Your task to perform on an android device: Go to CNN.com Image 0: 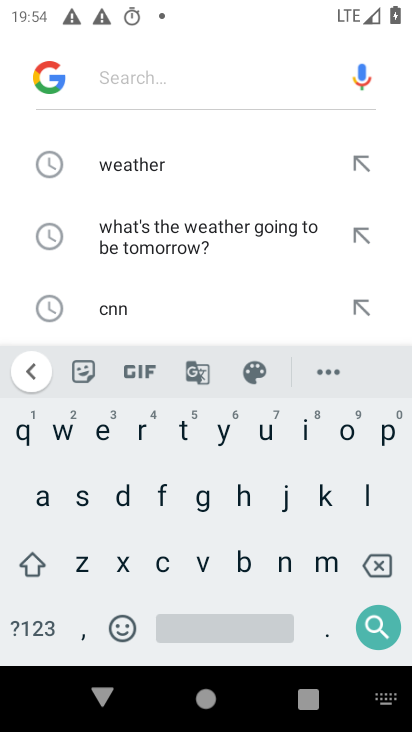
Step 0: press home button
Your task to perform on an android device: Go to CNN.com Image 1: 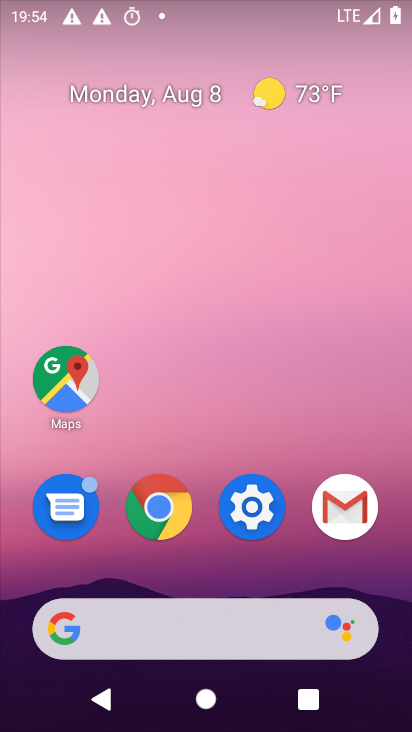
Step 1: click (152, 507)
Your task to perform on an android device: Go to CNN.com Image 2: 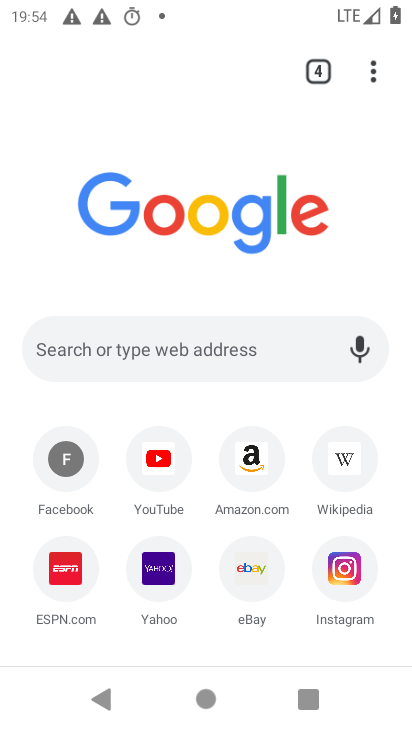
Step 2: click (164, 361)
Your task to perform on an android device: Go to CNN.com Image 3: 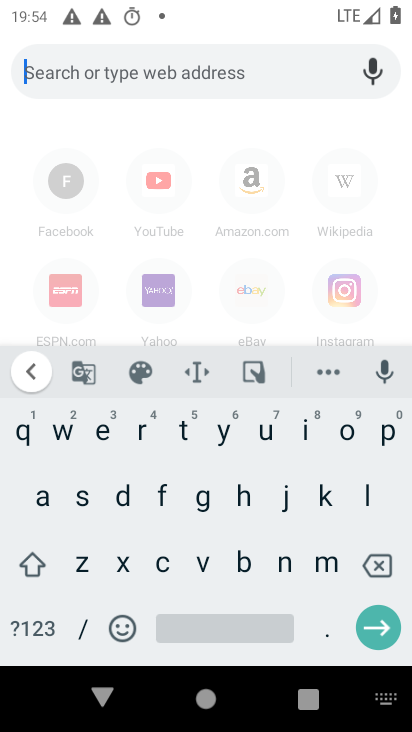
Step 3: click (159, 565)
Your task to perform on an android device: Go to CNN.com Image 4: 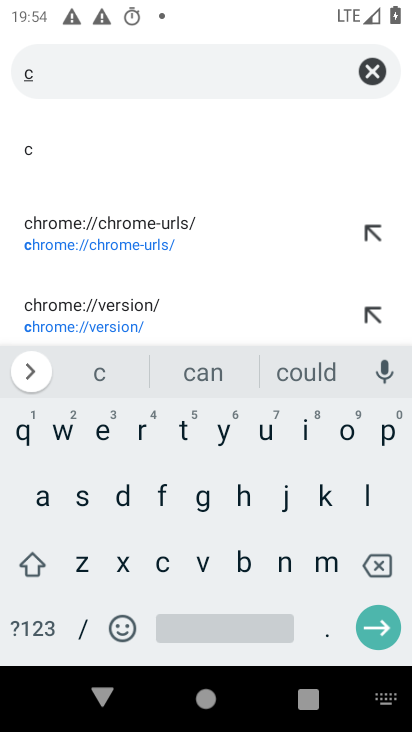
Step 4: click (290, 568)
Your task to perform on an android device: Go to CNN.com Image 5: 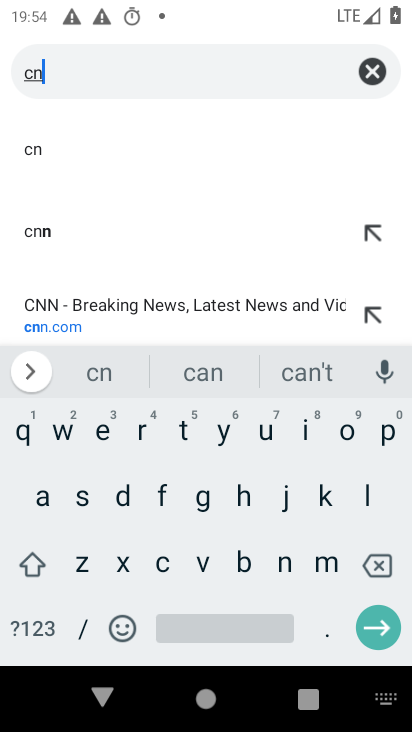
Step 5: click (289, 566)
Your task to perform on an android device: Go to CNN.com Image 6: 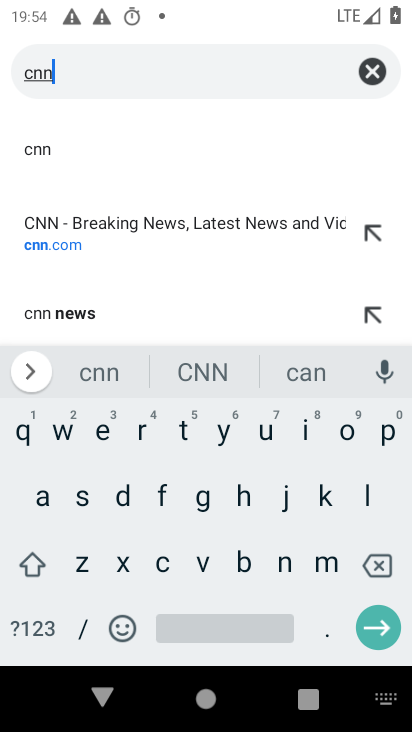
Step 6: click (373, 623)
Your task to perform on an android device: Go to CNN.com Image 7: 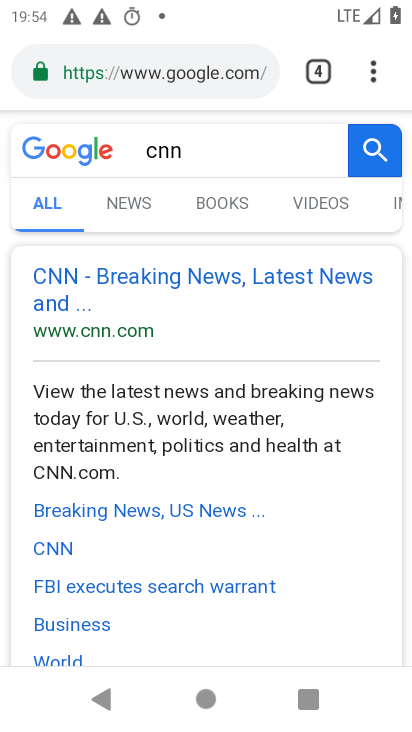
Step 7: click (102, 275)
Your task to perform on an android device: Go to CNN.com Image 8: 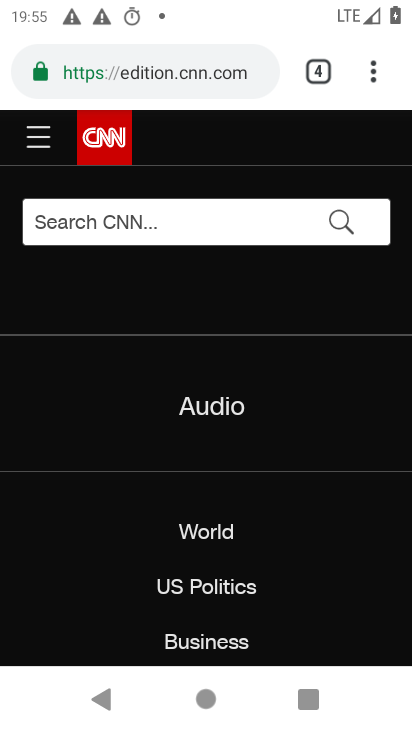
Step 8: task complete